Your task to perform on an android device: turn off sleep mode Image 0: 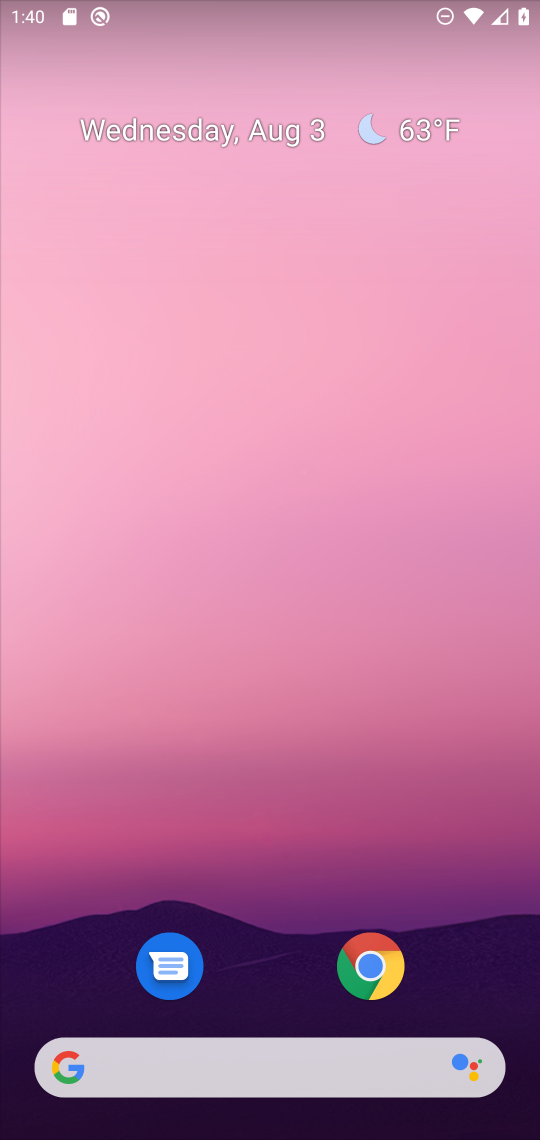
Step 0: drag from (276, 978) to (283, 285)
Your task to perform on an android device: turn off sleep mode Image 1: 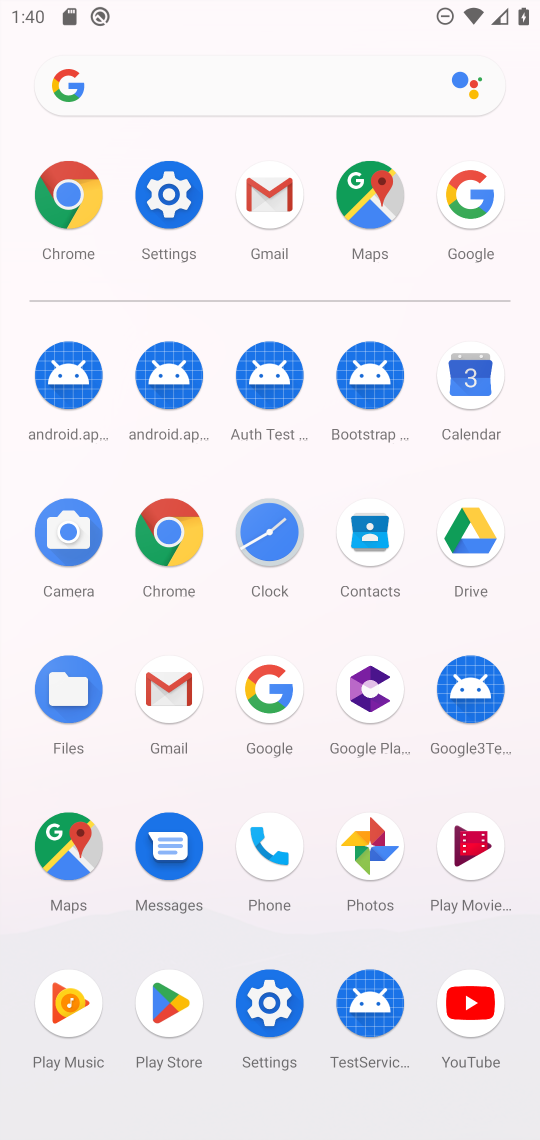
Step 1: click (160, 216)
Your task to perform on an android device: turn off sleep mode Image 2: 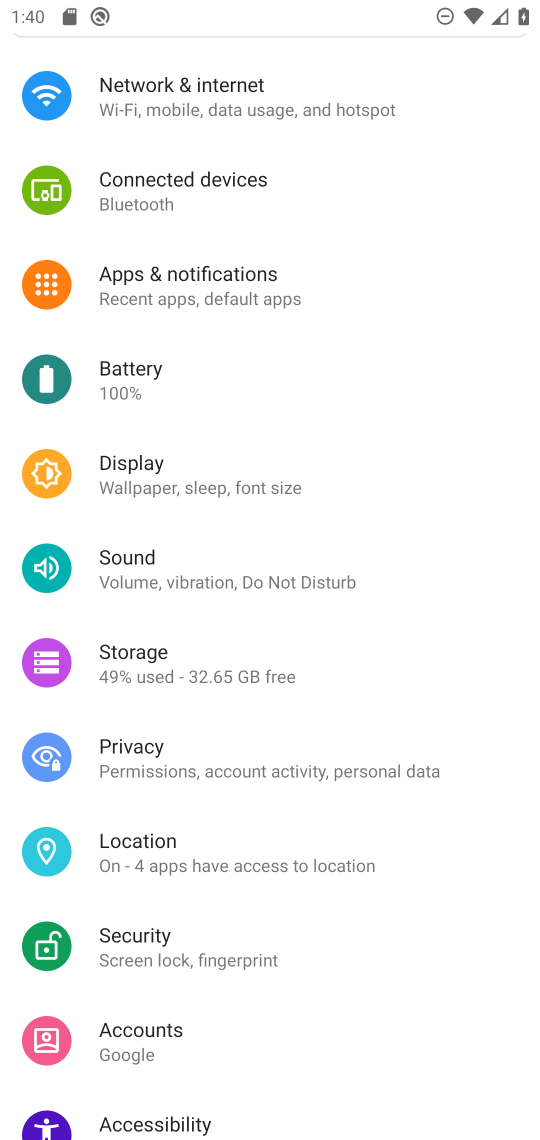
Step 2: click (219, 497)
Your task to perform on an android device: turn off sleep mode Image 3: 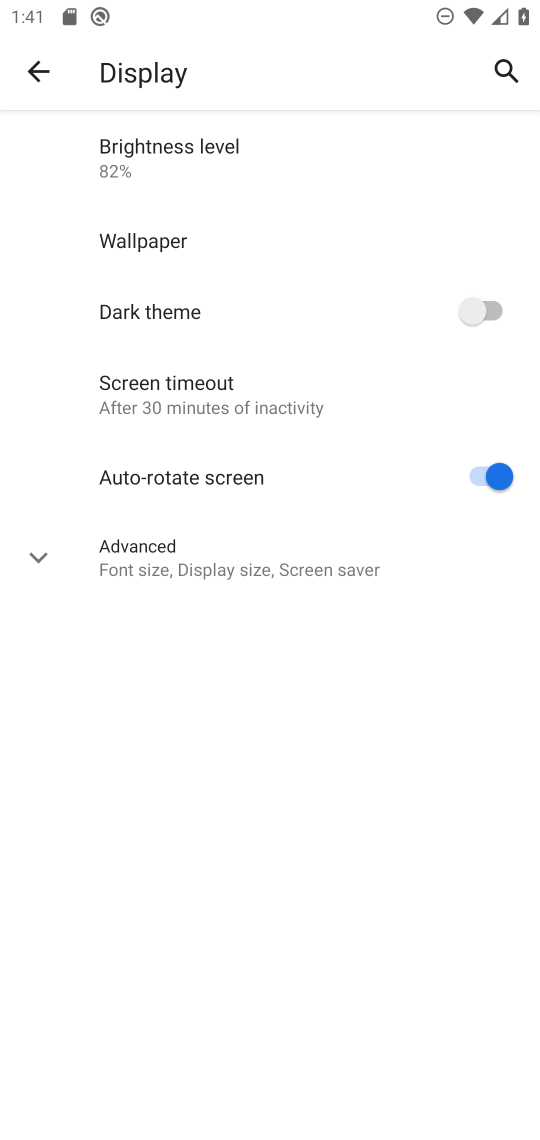
Step 3: click (219, 425)
Your task to perform on an android device: turn off sleep mode Image 4: 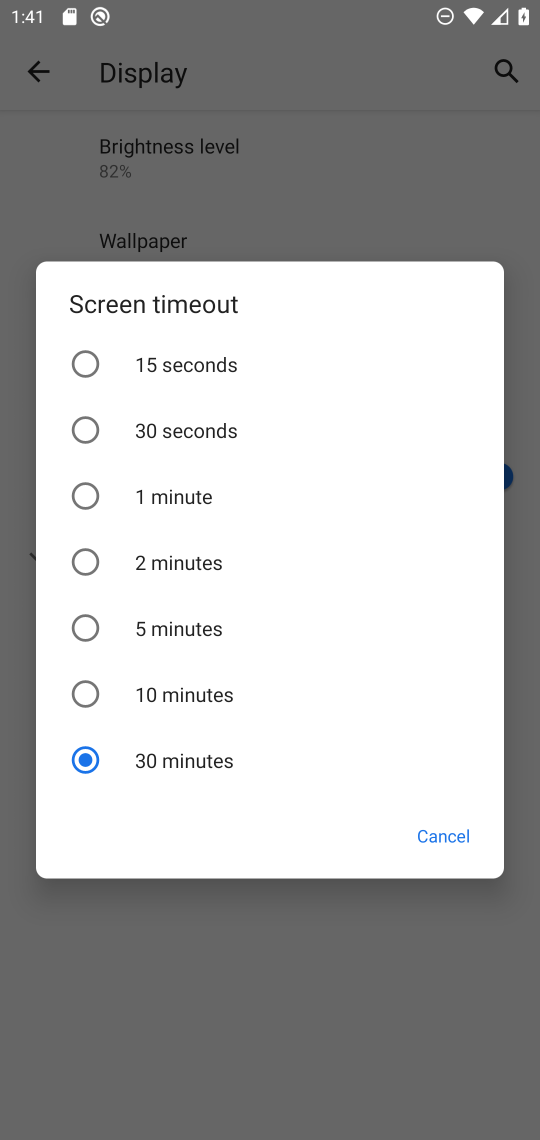
Step 4: click (147, 468)
Your task to perform on an android device: turn off sleep mode Image 5: 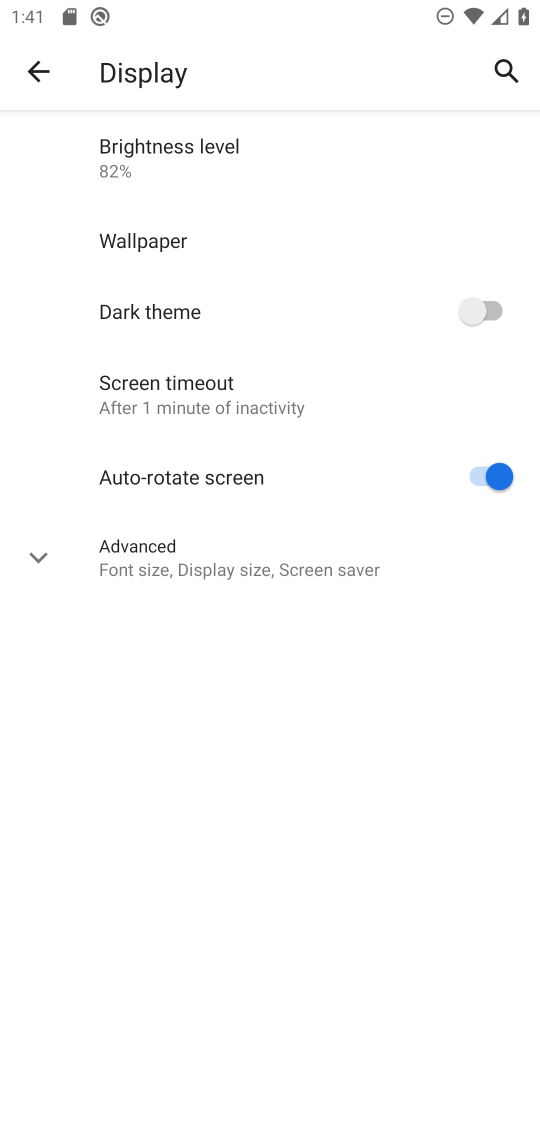
Step 5: task complete